Your task to perform on an android device: Search for seafood restaurants on Google Maps Image 0: 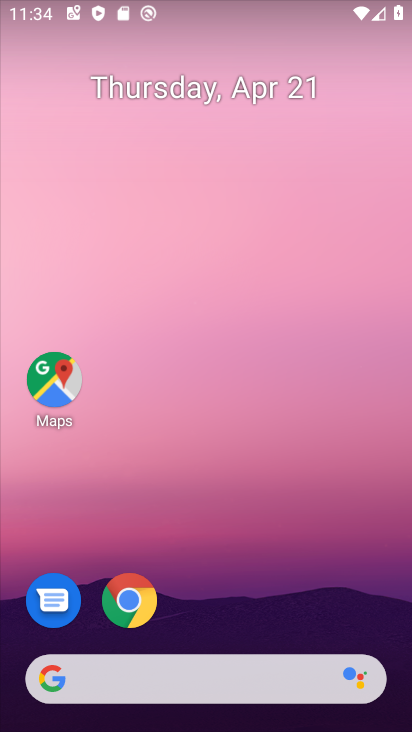
Step 0: click (66, 376)
Your task to perform on an android device: Search for seafood restaurants on Google Maps Image 1: 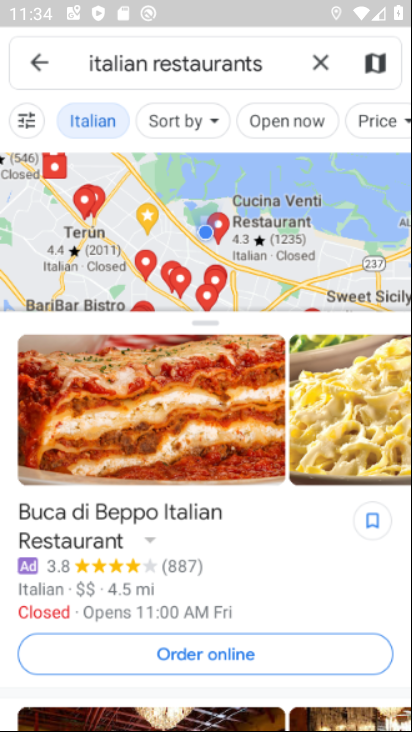
Step 1: click (112, 58)
Your task to perform on an android device: Search for seafood restaurants on Google Maps Image 2: 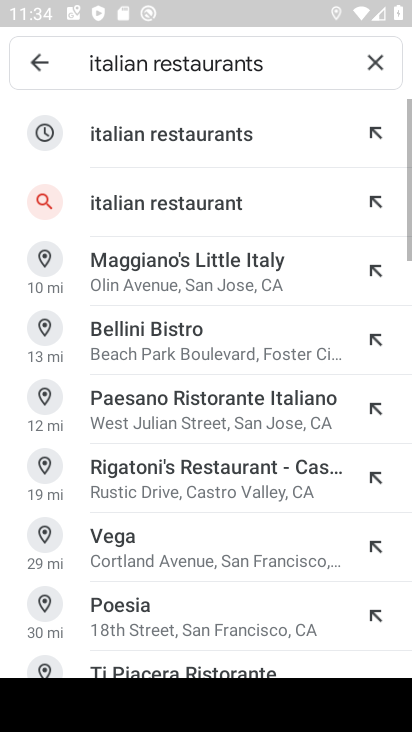
Step 2: click (118, 58)
Your task to perform on an android device: Search for seafood restaurants on Google Maps Image 3: 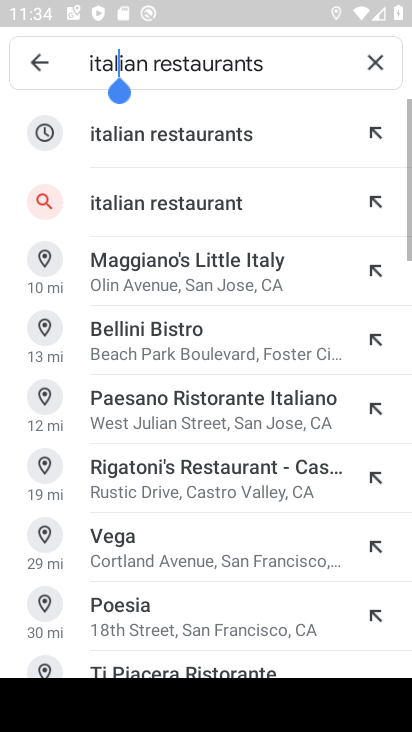
Step 3: click (117, 58)
Your task to perform on an android device: Search for seafood restaurants on Google Maps Image 4: 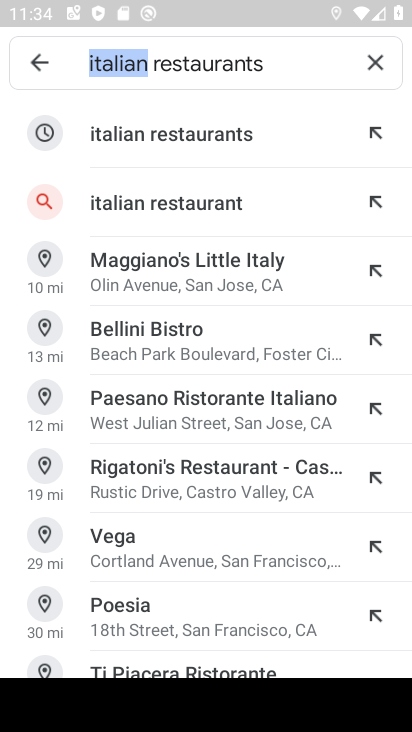
Step 4: click (117, 58)
Your task to perform on an android device: Search for seafood restaurants on Google Maps Image 5: 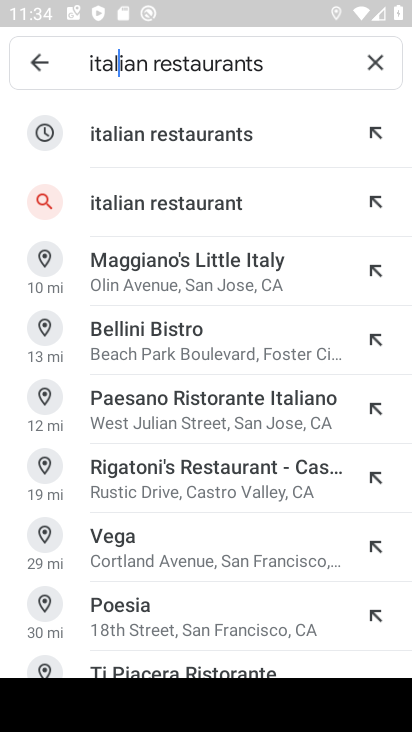
Step 5: click (372, 64)
Your task to perform on an android device: Search for seafood restaurants on Google Maps Image 6: 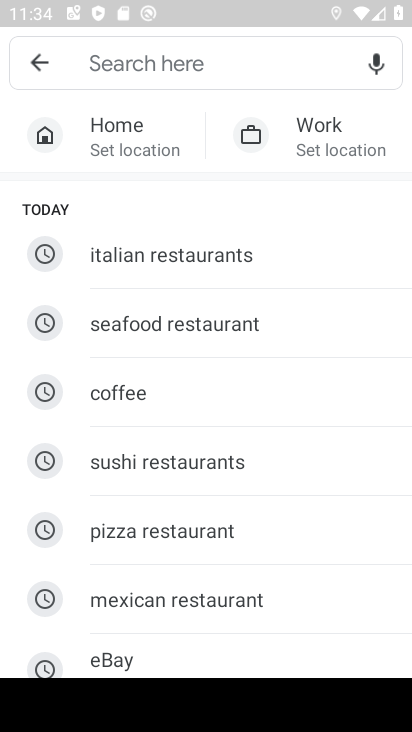
Step 6: type "seafood restaurants"
Your task to perform on an android device: Search for seafood restaurants on Google Maps Image 7: 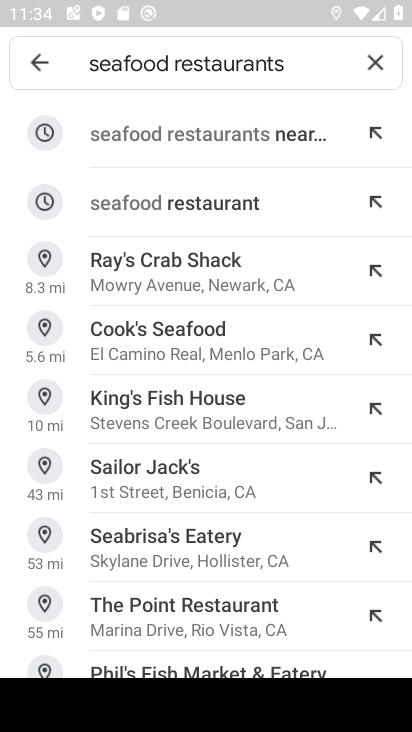
Step 7: click (178, 203)
Your task to perform on an android device: Search for seafood restaurants on Google Maps Image 8: 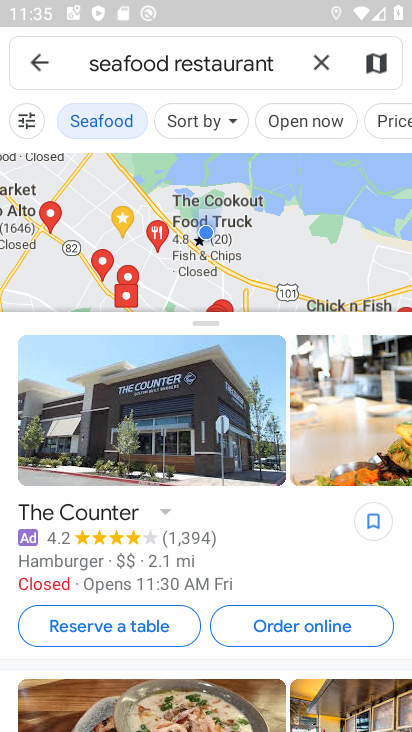
Step 8: task complete